Your task to perform on an android device: turn on improve location accuracy Image 0: 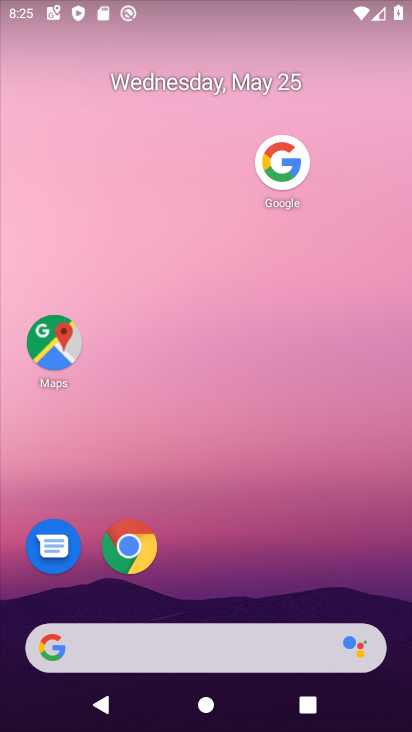
Step 0: press home button
Your task to perform on an android device: turn on improve location accuracy Image 1: 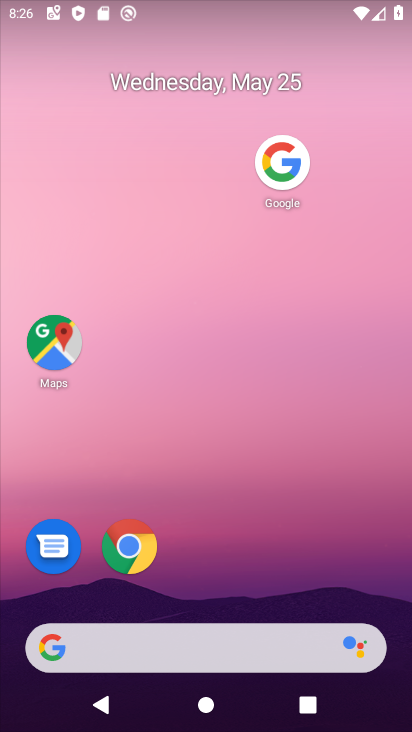
Step 1: drag from (146, 650) to (256, 75)
Your task to perform on an android device: turn on improve location accuracy Image 2: 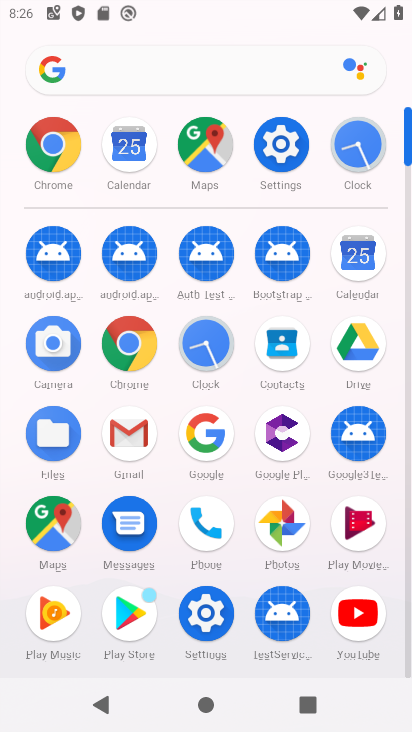
Step 2: click (272, 147)
Your task to perform on an android device: turn on improve location accuracy Image 3: 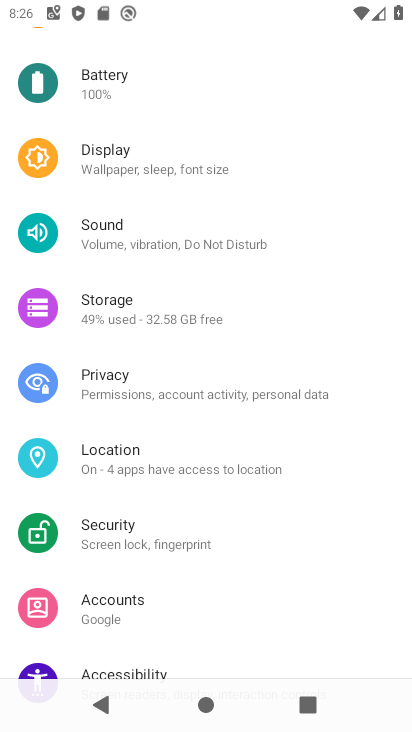
Step 3: click (150, 460)
Your task to perform on an android device: turn on improve location accuracy Image 4: 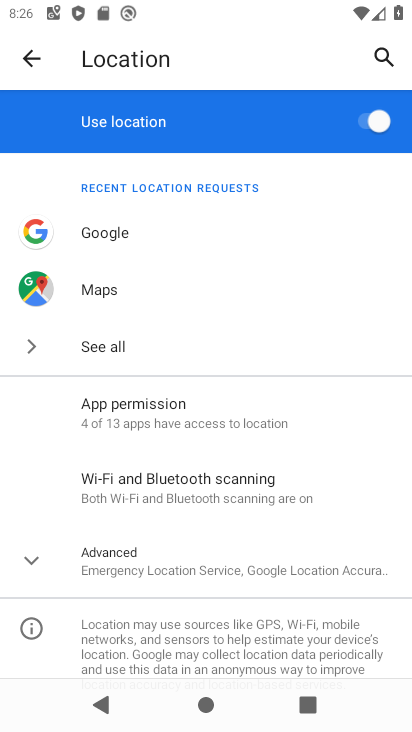
Step 4: click (148, 565)
Your task to perform on an android device: turn on improve location accuracy Image 5: 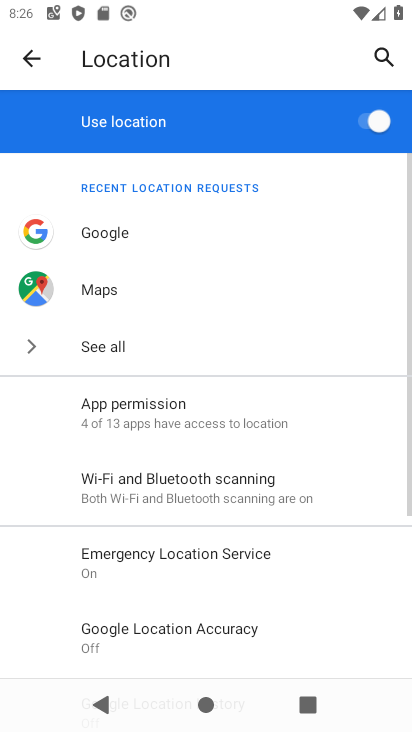
Step 5: drag from (233, 588) to (360, 230)
Your task to perform on an android device: turn on improve location accuracy Image 6: 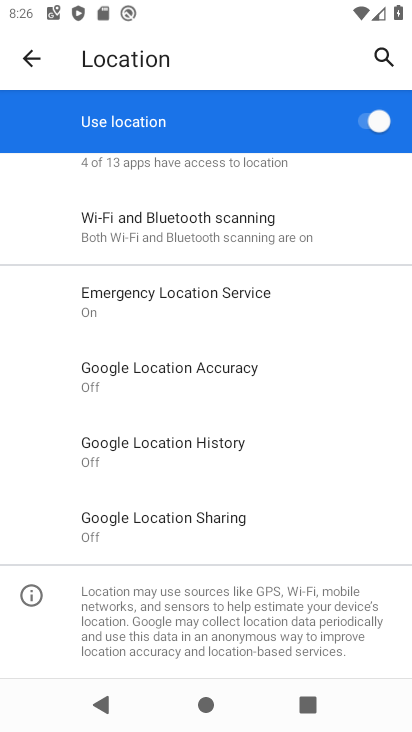
Step 6: click (196, 376)
Your task to perform on an android device: turn on improve location accuracy Image 7: 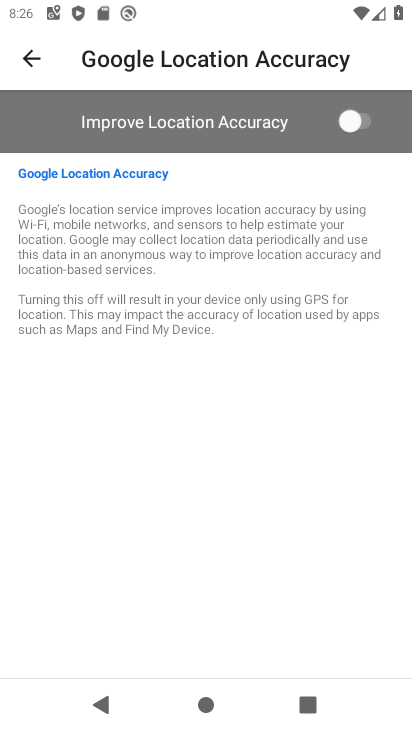
Step 7: click (360, 119)
Your task to perform on an android device: turn on improve location accuracy Image 8: 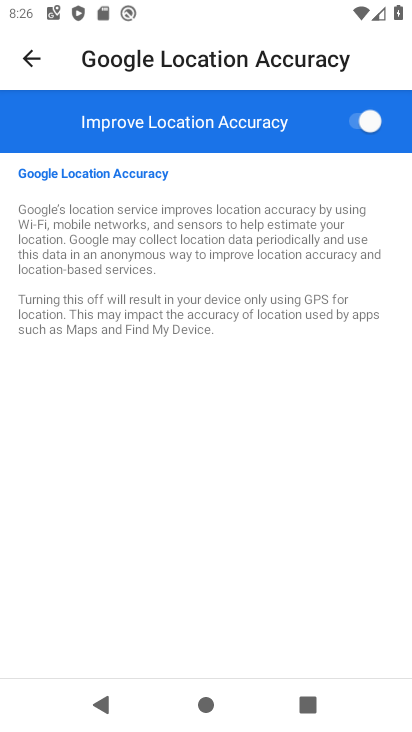
Step 8: task complete